Your task to perform on an android device: Open accessibility settings Image 0: 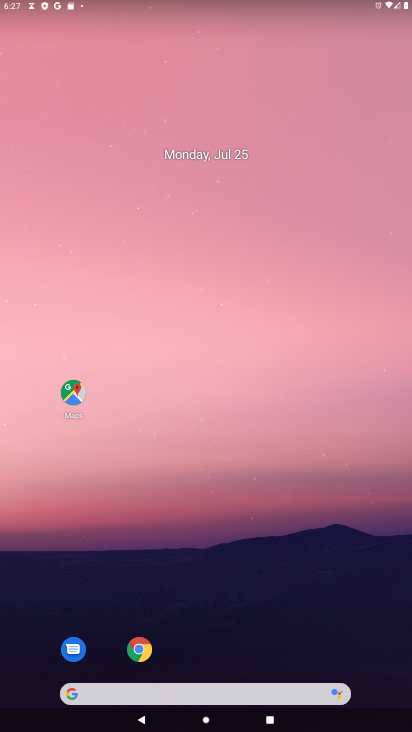
Step 0: drag from (244, 679) to (317, 8)
Your task to perform on an android device: Open accessibility settings Image 1: 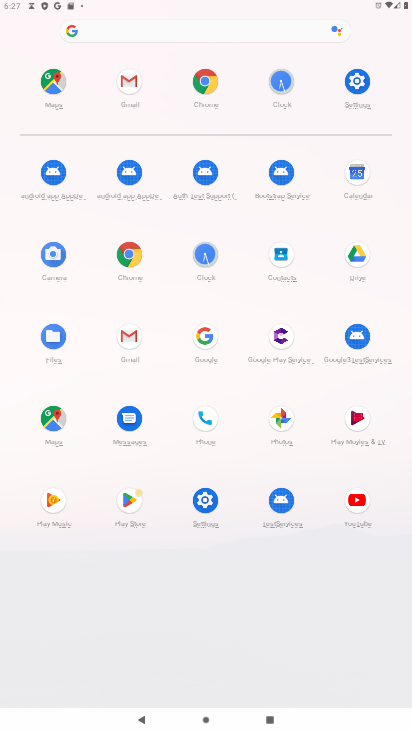
Step 1: click (355, 74)
Your task to perform on an android device: Open accessibility settings Image 2: 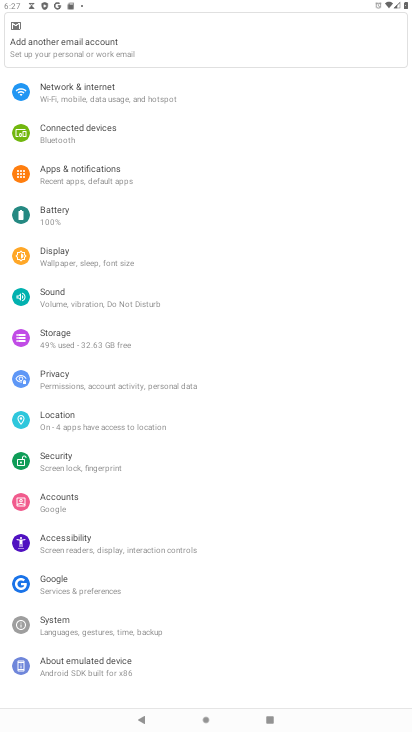
Step 2: click (103, 532)
Your task to perform on an android device: Open accessibility settings Image 3: 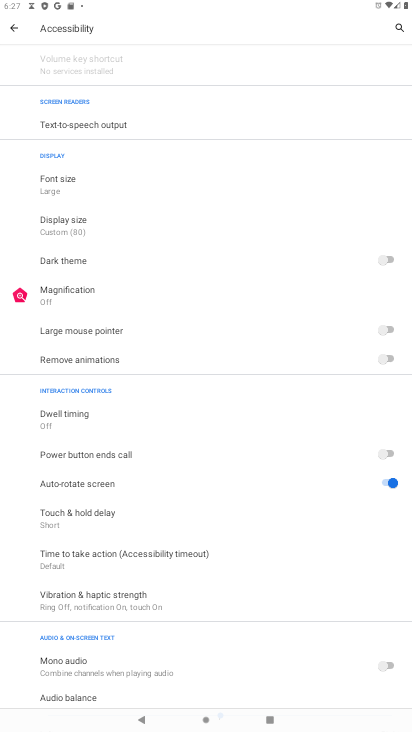
Step 3: task complete